Your task to perform on an android device: turn on data saver in the chrome app Image 0: 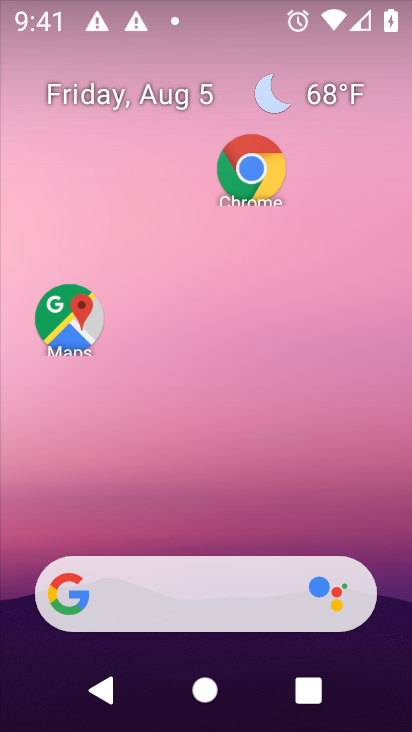
Step 0: click (261, 177)
Your task to perform on an android device: turn on data saver in the chrome app Image 1: 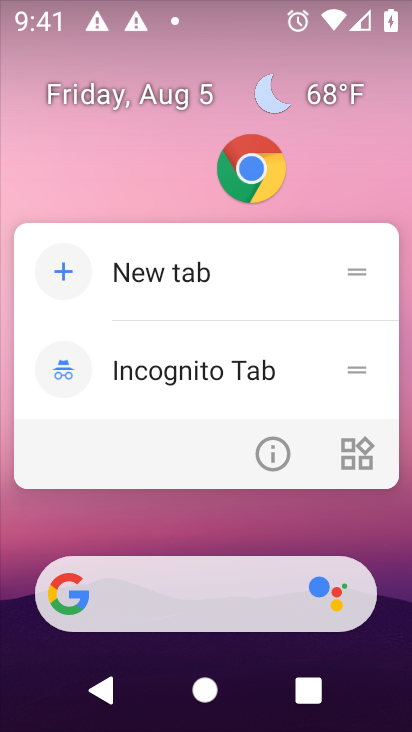
Step 1: click (261, 177)
Your task to perform on an android device: turn on data saver in the chrome app Image 2: 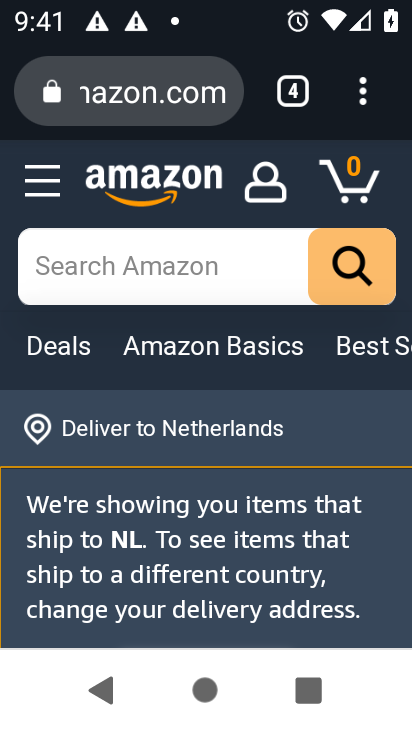
Step 2: click (369, 90)
Your task to perform on an android device: turn on data saver in the chrome app Image 3: 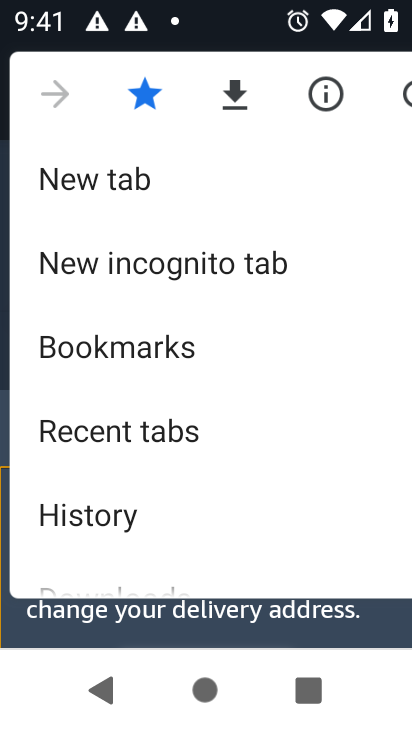
Step 3: drag from (171, 515) to (195, 276)
Your task to perform on an android device: turn on data saver in the chrome app Image 4: 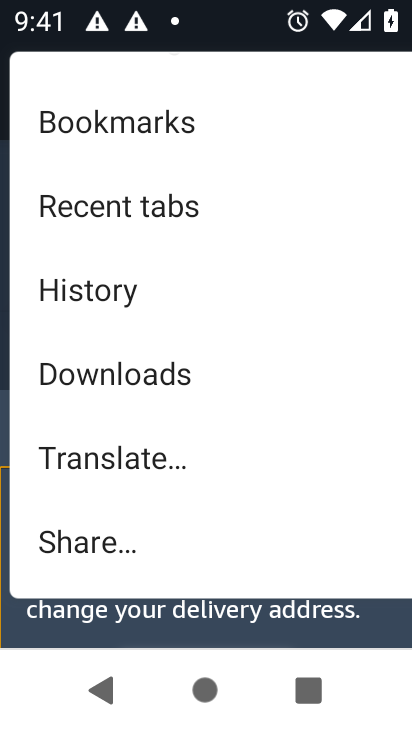
Step 4: drag from (138, 517) to (136, 214)
Your task to perform on an android device: turn on data saver in the chrome app Image 5: 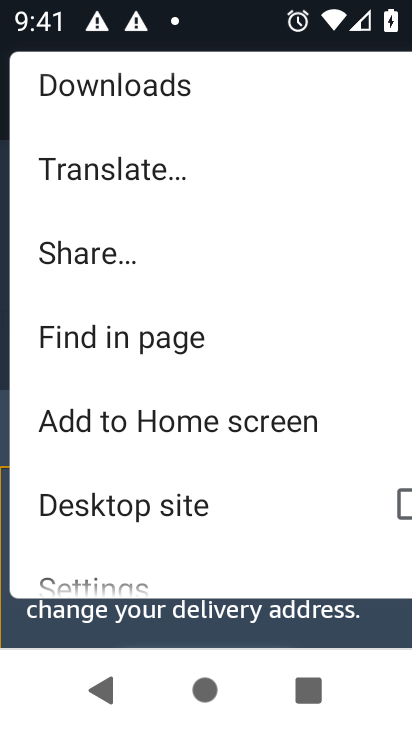
Step 5: drag from (158, 500) to (167, 204)
Your task to perform on an android device: turn on data saver in the chrome app Image 6: 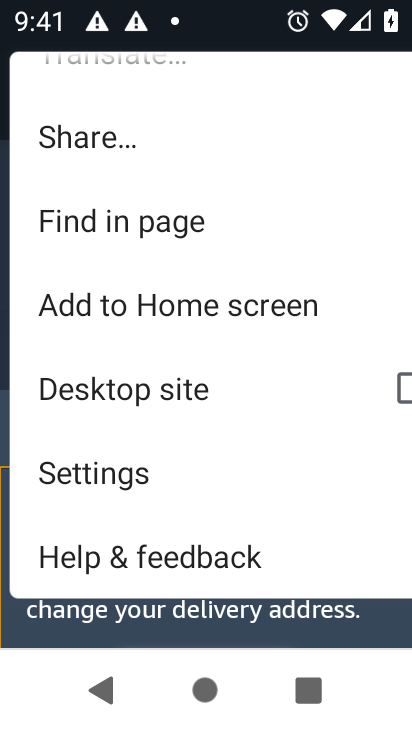
Step 6: click (139, 468)
Your task to perform on an android device: turn on data saver in the chrome app Image 7: 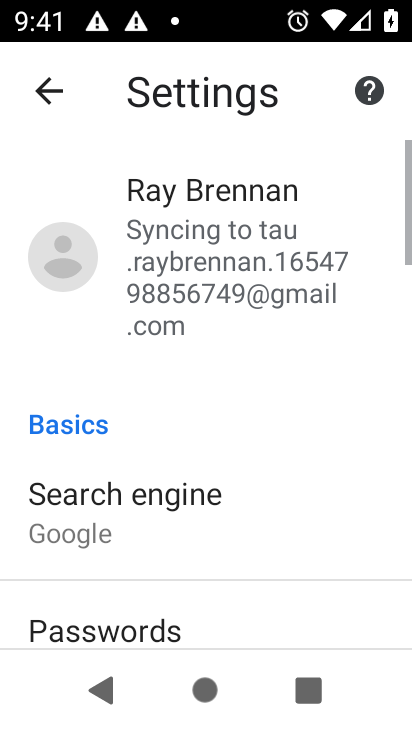
Step 7: drag from (184, 583) to (183, 271)
Your task to perform on an android device: turn on data saver in the chrome app Image 8: 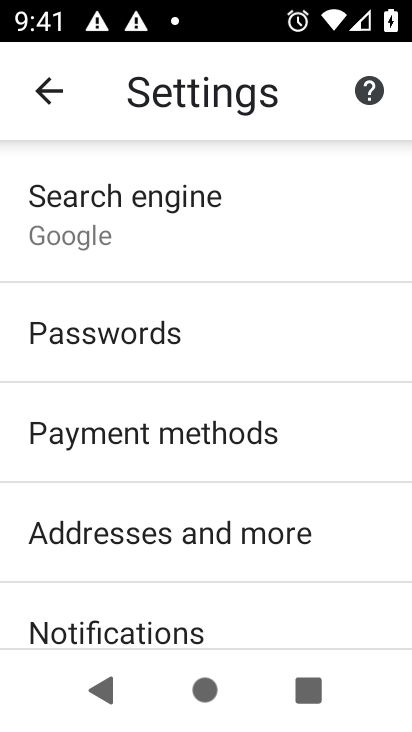
Step 8: drag from (195, 599) to (151, 240)
Your task to perform on an android device: turn on data saver in the chrome app Image 9: 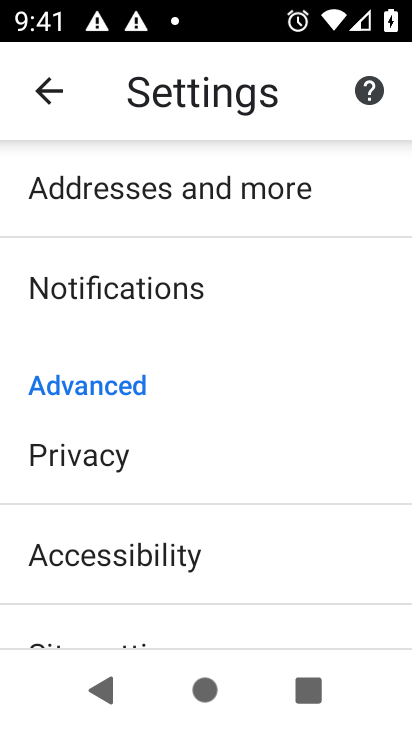
Step 9: drag from (180, 560) to (218, 297)
Your task to perform on an android device: turn on data saver in the chrome app Image 10: 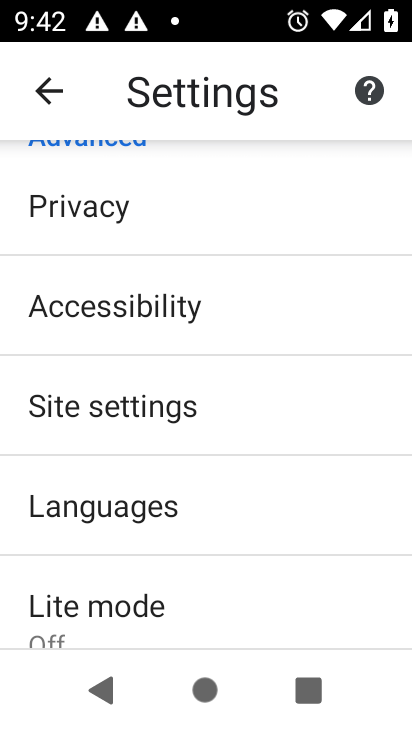
Step 10: click (150, 616)
Your task to perform on an android device: turn on data saver in the chrome app Image 11: 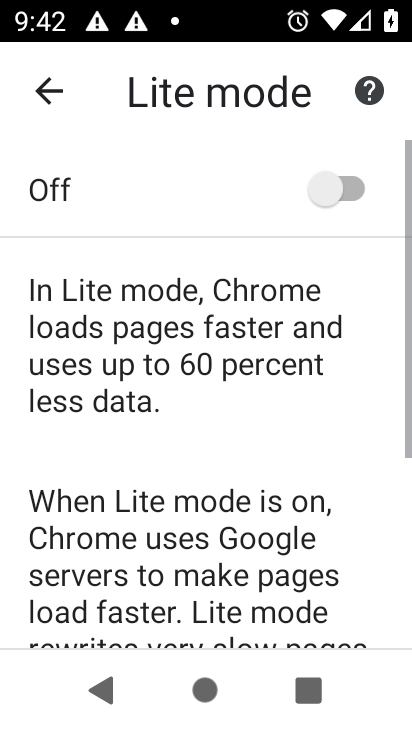
Step 11: click (350, 187)
Your task to perform on an android device: turn on data saver in the chrome app Image 12: 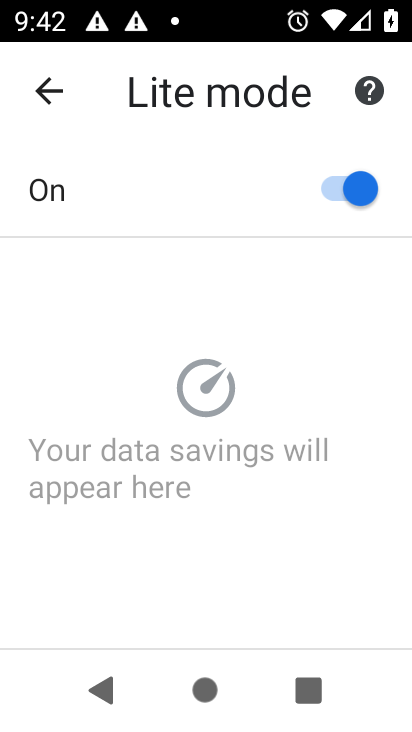
Step 12: task complete